Your task to perform on an android device: search for starred emails in the gmail app Image 0: 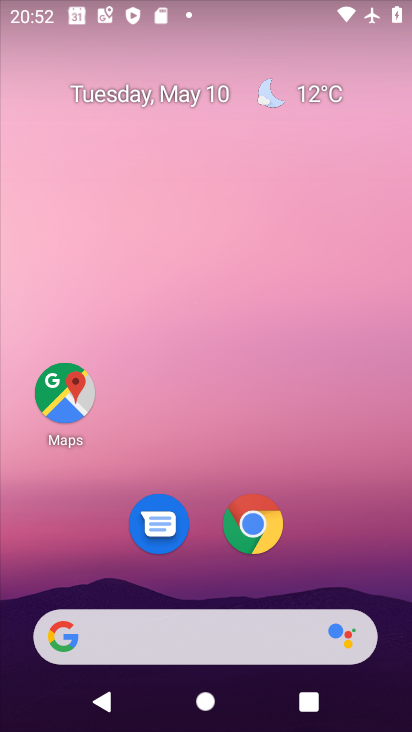
Step 0: drag from (332, 518) to (342, 28)
Your task to perform on an android device: search for starred emails in the gmail app Image 1: 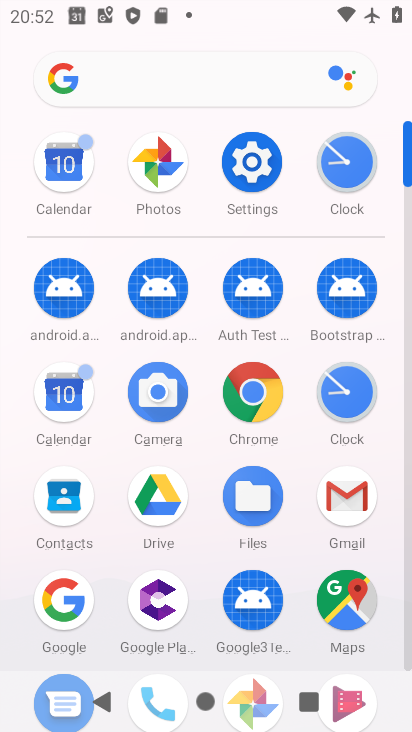
Step 1: click (351, 501)
Your task to perform on an android device: search for starred emails in the gmail app Image 2: 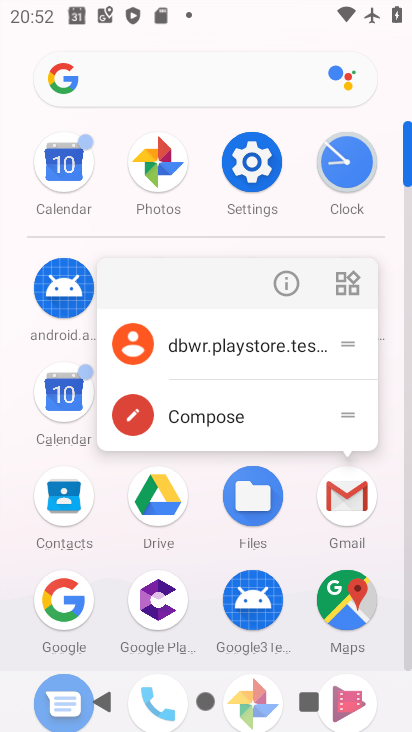
Step 2: click (332, 483)
Your task to perform on an android device: search for starred emails in the gmail app Image 3: 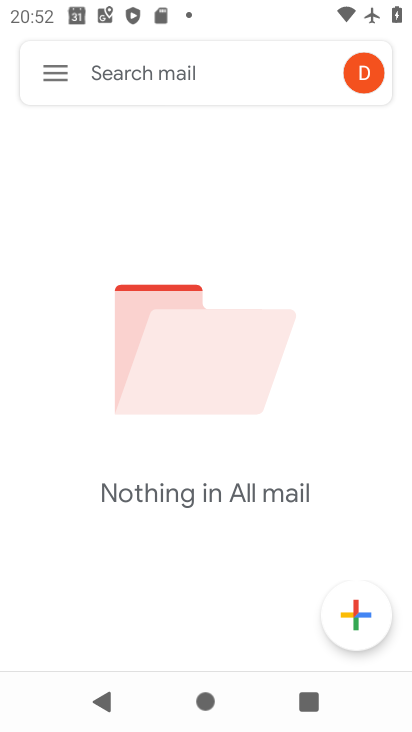
Step 3: click (53, 73)
Your task to perform on an android device: search for starred emails in the gmail app Image 4: 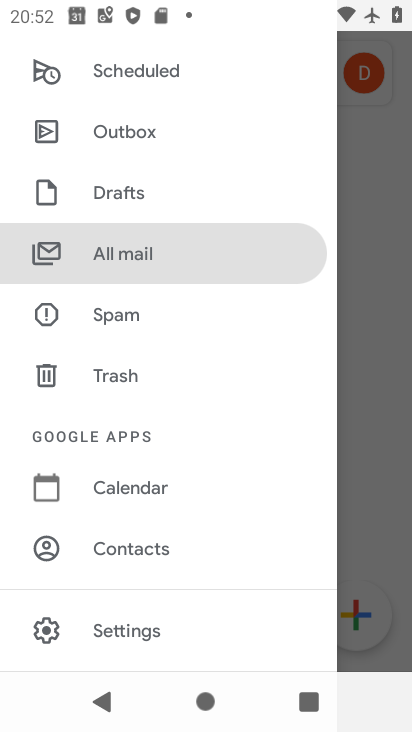
Step 4: drag from (173, 126) to (212, 582)
Your task to perform on an android device: search for starred emails in the gmail app Image 5: 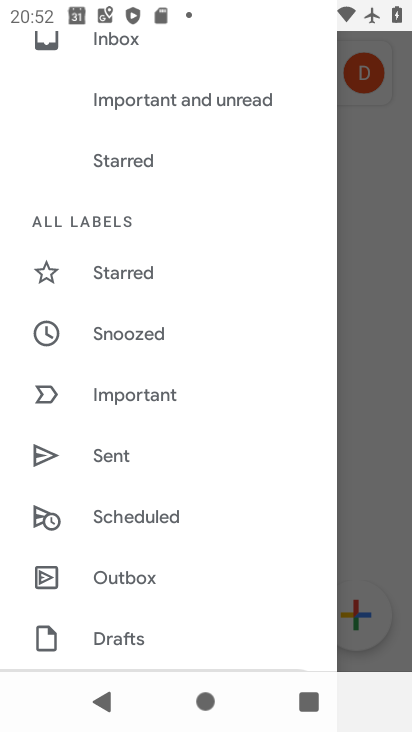
Step 5: click (166, 266)
Your task to perform on an android device: search for starred emails in the gmail app Image 6: 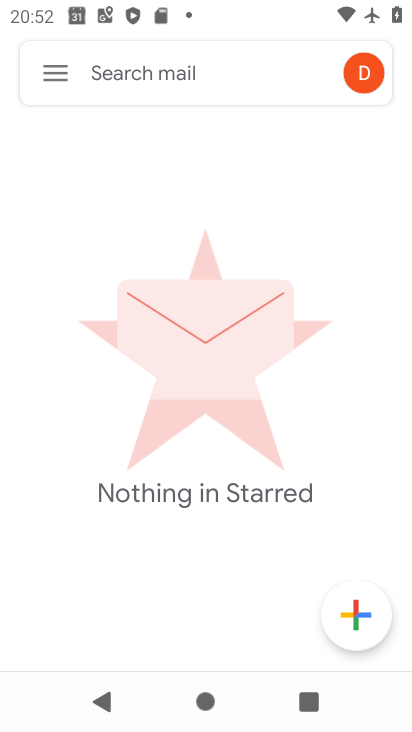
Step 6: task complete